Your task to perform on an android device: check battery use Image 0: 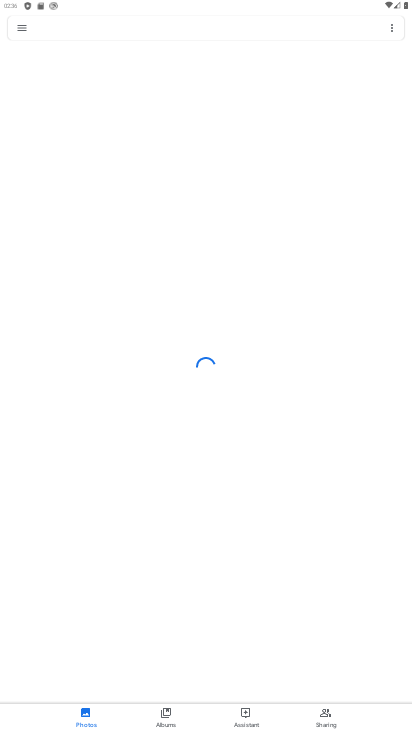
Step 0: press home button
Your task to perform on an android device: check battery use Image 1: 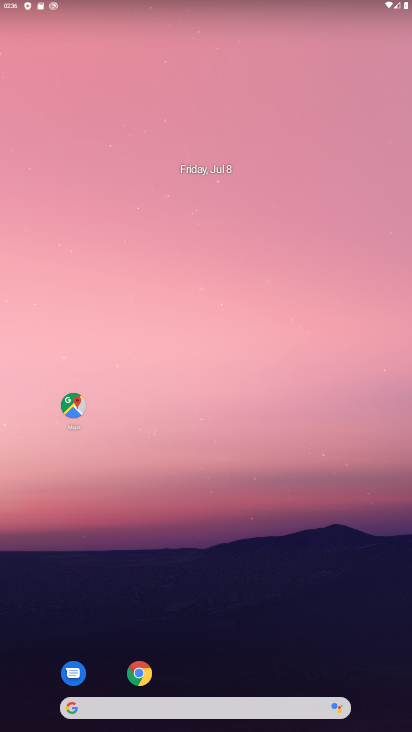
Step 1: drag from (108, 562) to (235, 94)
Your task to perform on an android device: check battery use Image 2: 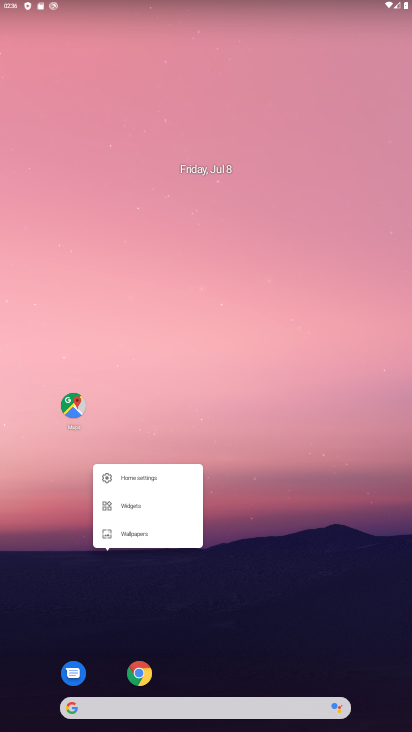
Step 2: click (249, 392)
Your task to perform on an android device: check battery use Image 3: 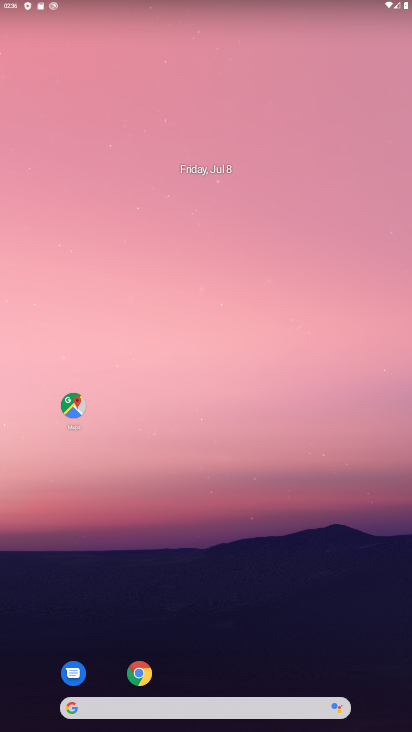
Step 3: drag from (292, 571) to (299, 56)
Your task to perform on an android device: check battery use Image 4: 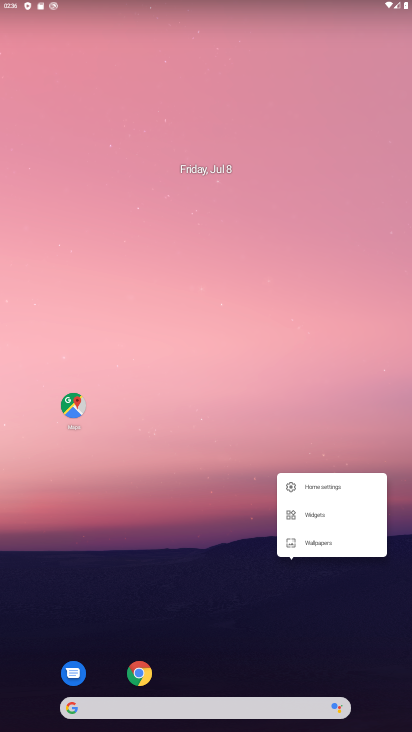
Step 4: click (185, 286)
Your task to perform on an android device: check battery use Image 5: 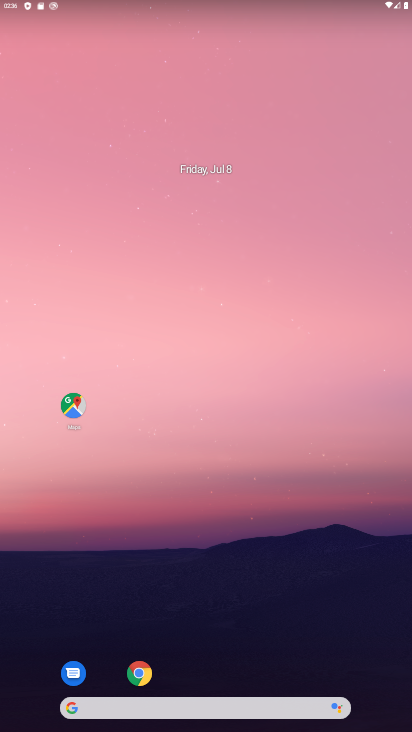
Step 5: click (229, 631)
Your task to perform on an android device: check battery use Image 6: 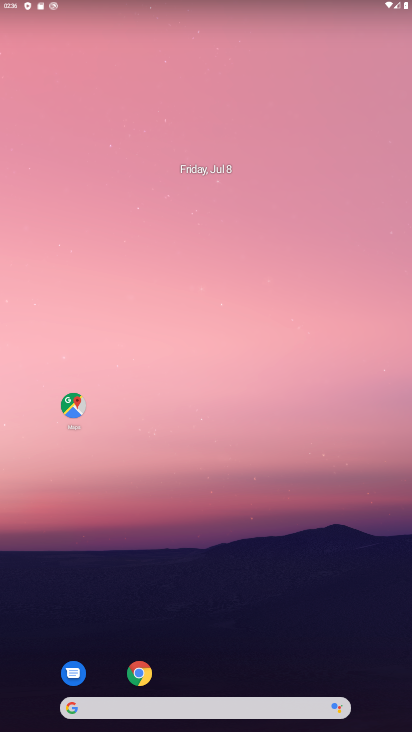
Step 6: drag from (239, 657) to (243, 97)
Your task to perform on an android device: check battery use Image 7: 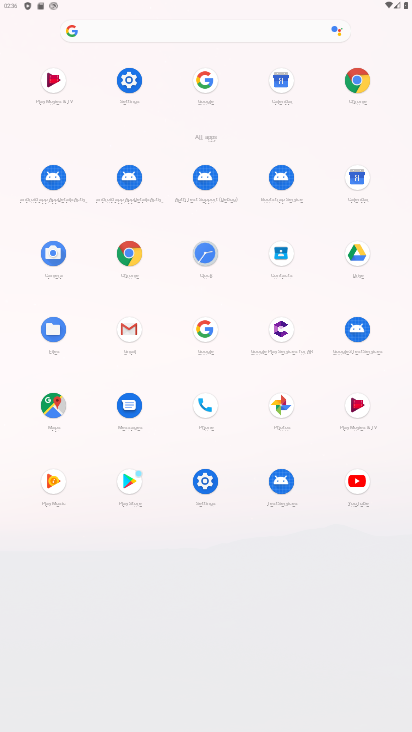
Step 7: click (201, 478)
Your task to perform on an android device: check battery use Image 8: 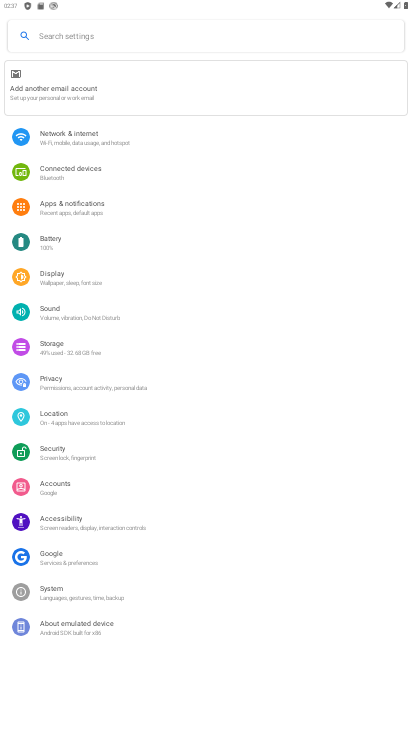
Step 8: click (38, 239)
Your task to perform on an android device: check battery use Image 9: 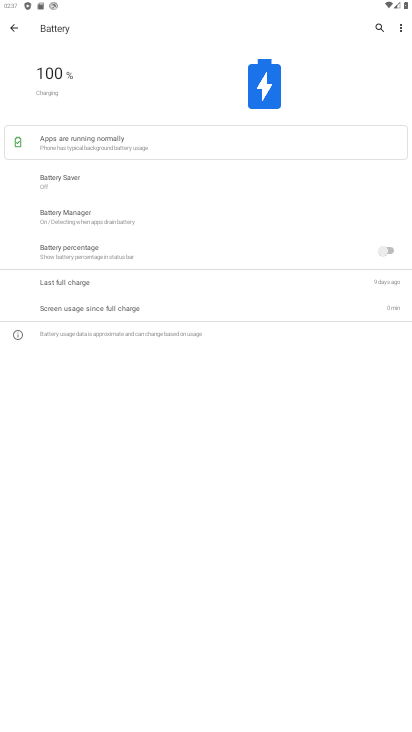
Step 9: task complete